Your task to perform on an android device: Find coffee shops on Maps Image 0: 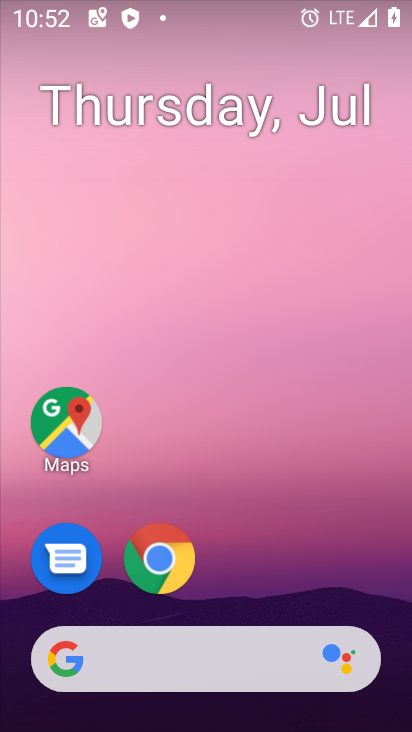
Step 0: press home button
Your task to perform on an android device: Find coffee shops on Maps Image 1: 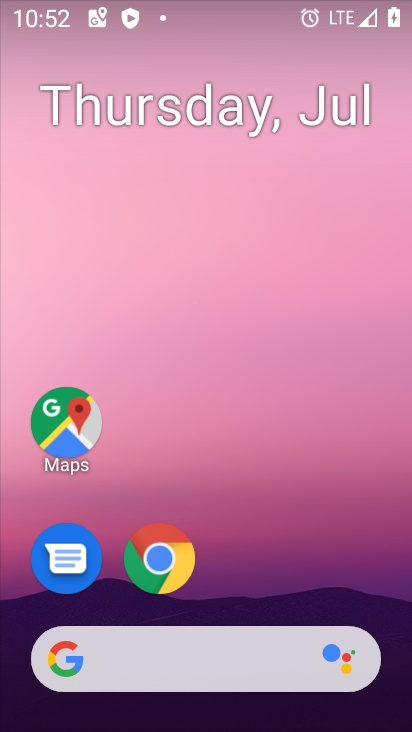
Step 1: drag from (349, 533) to (394, 62)
Your task to perform on an android device: Find coffee shops on Maps Image 2: 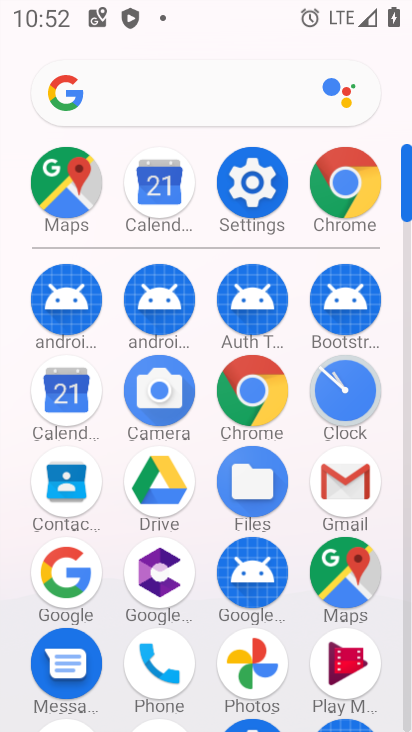
Step 2: click (350, 568)
Your task to perform on an android device: Find coffee shops on Maps Image 3: 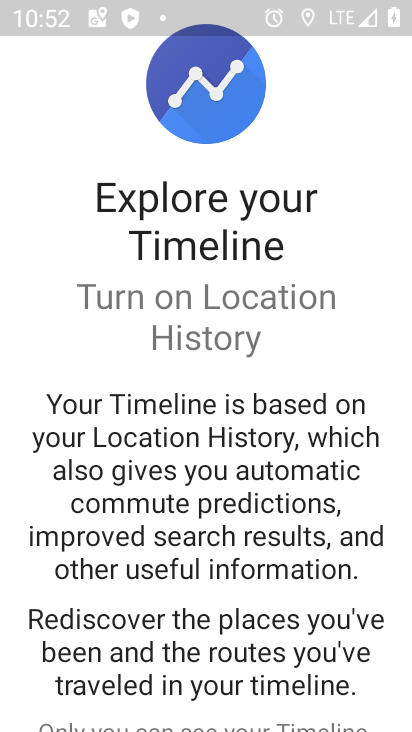
Step 3: press back button
Your task to perform on an android device: Find coffee shops on Maps Image 4: 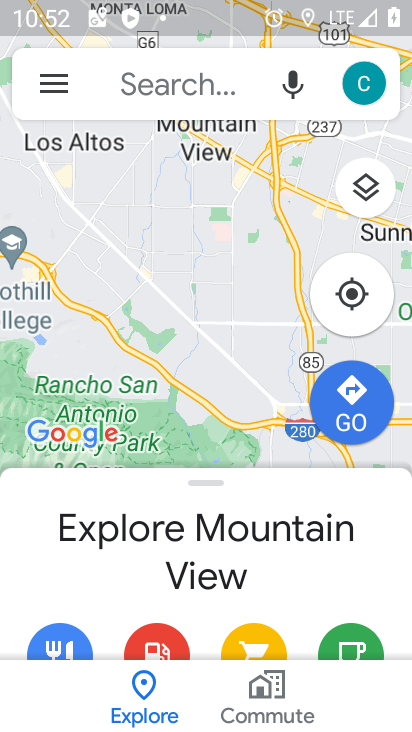
Step 4: click (209, 84)
Your task to perform on an android device: Find coffee shops on Maps Image 5: 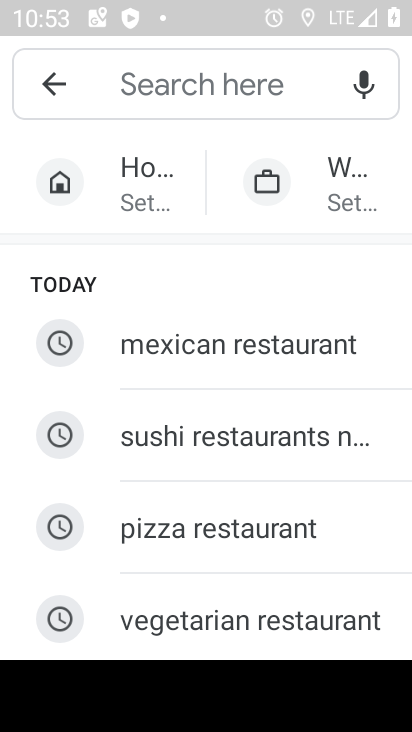
Step 5: type "coffee"
Your task to perform on an android device: Find coffee shops on Maps Image 6: 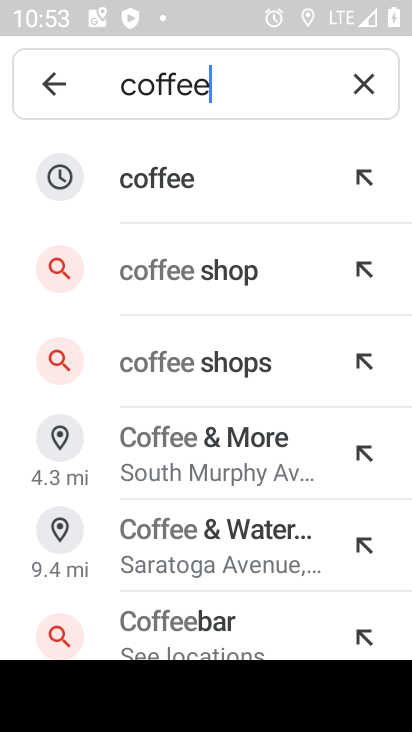
Step 6: click (235, 201)
Your task to perform on an android device: Find coffee shops on Maps Image 7: 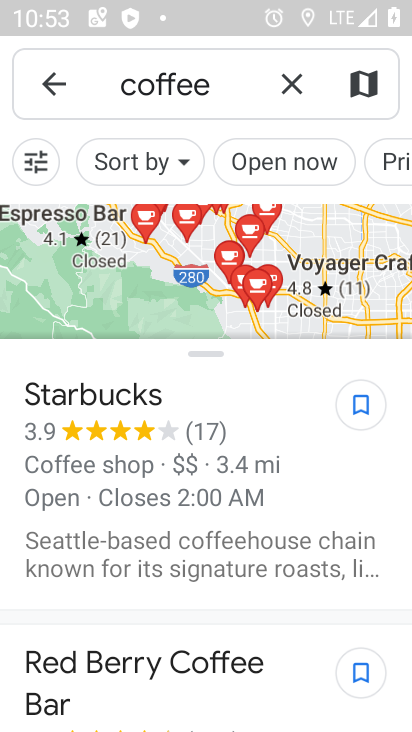
Step 7: task complete